Your task to perform on an android device: check storage Image 0: 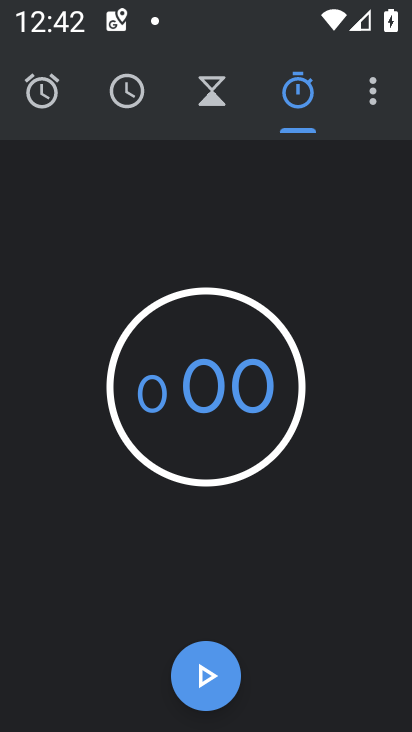
Step 0: press back button
Your task to perform on an android device: check storage Image 1: 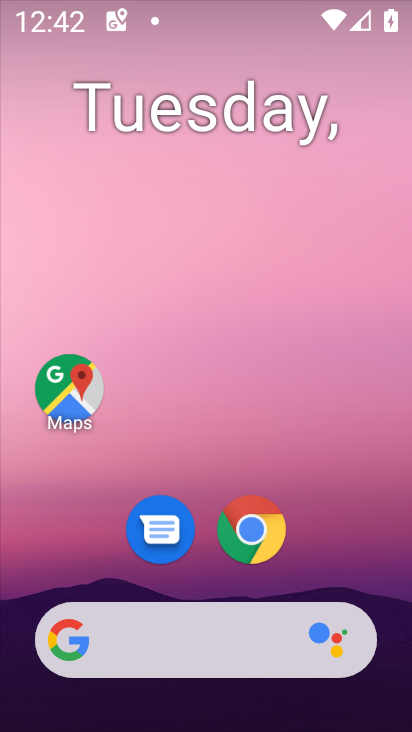
Step 1: drag from (192, 570) to (200, 21)
Your task to perform on an android device: check storage Image 2: 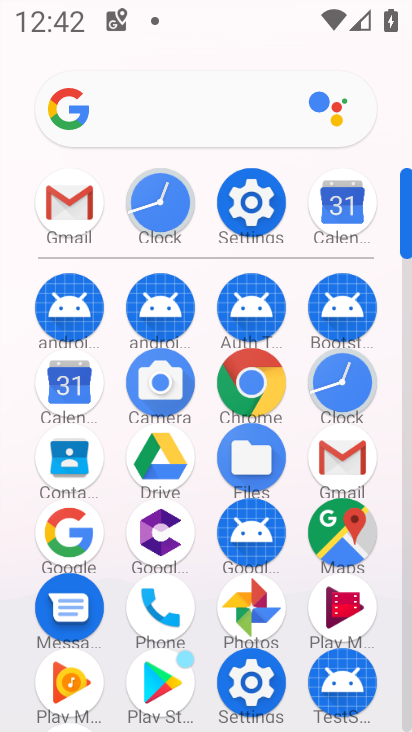
Step 2: click (263, 190)
Your task to perform on an android device: check storage Image 3: 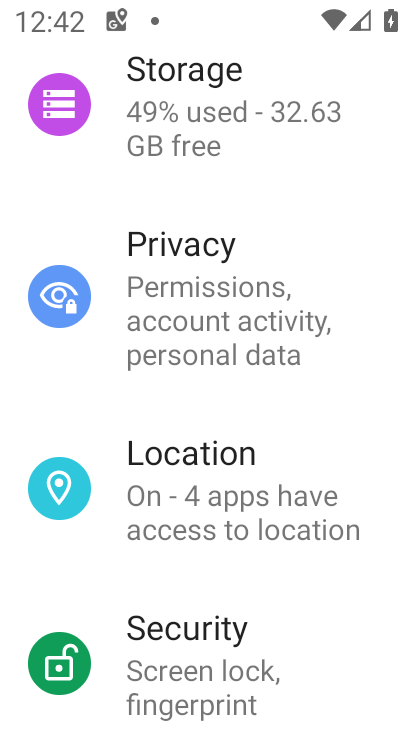
Step 3: click (215, 111)
Your task to perform on an android device: check storage Image 4: 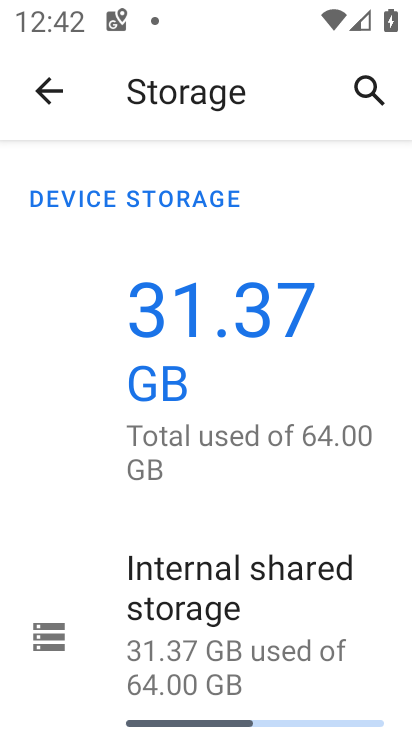
Step 4: task complete